Your task to perform on an android device: Open Chrome and go to the settings page Image 0: 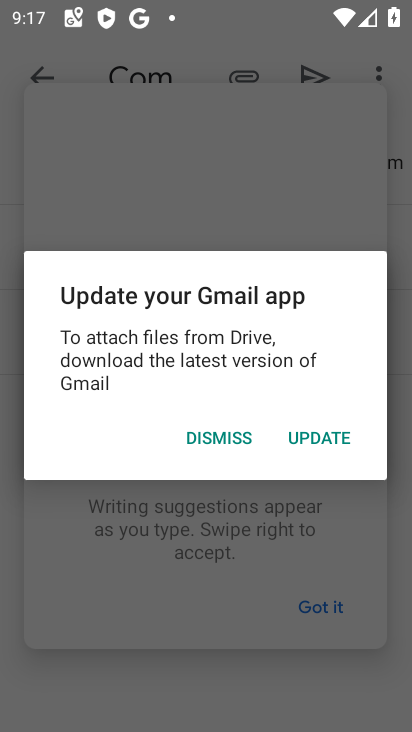
Step 0: press back button
Your task to perform on an android device: Open Chrome and go to the settings page Image 1: 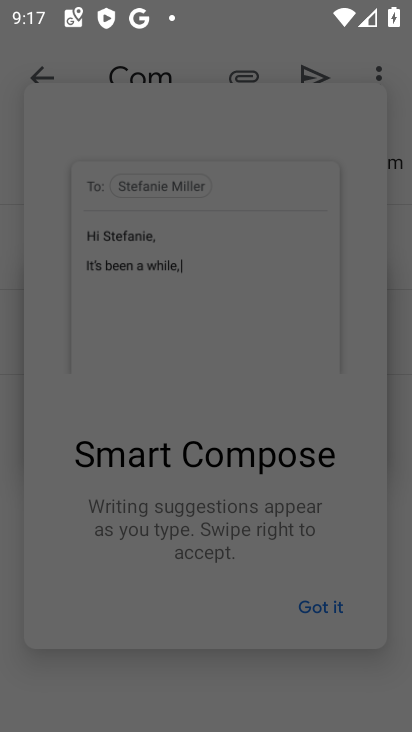
Step 1: press home button
Your task to perform on an android device: Open Chrome and go to the settings page Image 2: 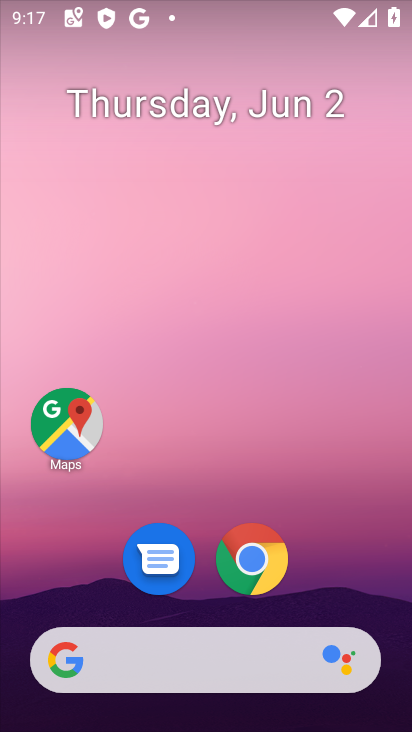
Step 2: click (249, 550)
Your task to perform on an android device: Open Chrome and go to the settings page Image 3: 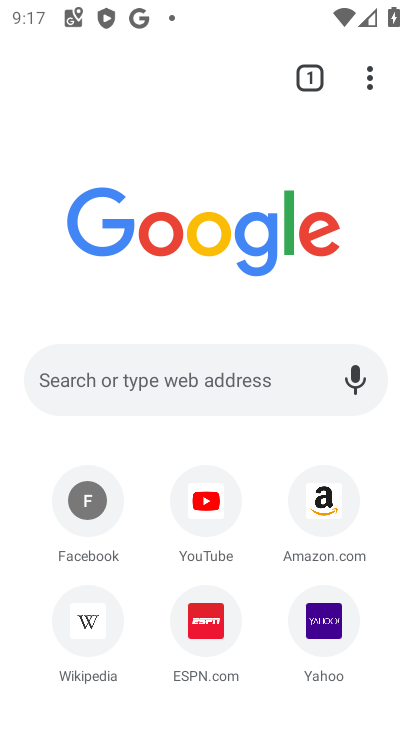
Step 3: click (363, 69)
Your task to perform on an android device: Open Chrome and go to the settings page Image 4: 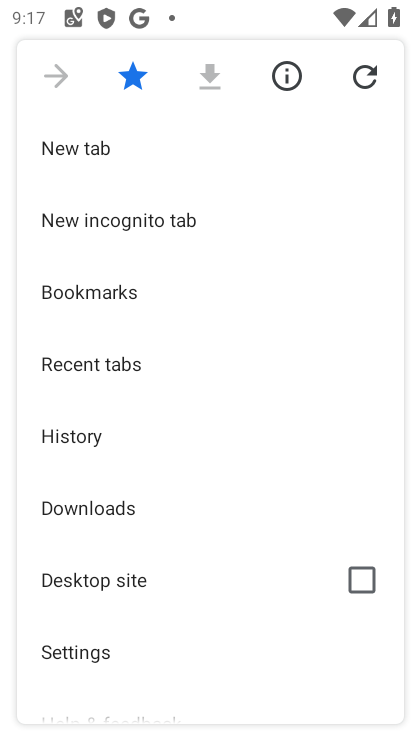
Step 4: click (45, 645)
Your task to perform on an android device: Open Chrome and go to the settings page Image 5: 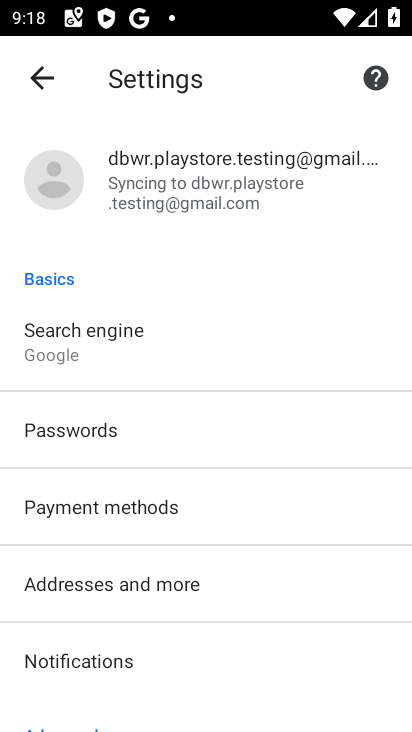
Step 5: task complete